Your task to perform on an android device: uninstall "DoorDash - Food Delivery" Image 0: 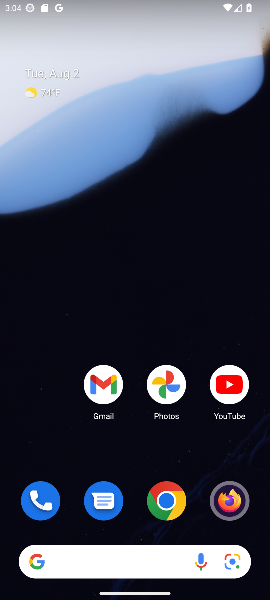
Step 0: drag from (164, 396) to (161, 4)
Your task to perform on an android device: uninstall "DoorDash - Food Delivery" Image 1: 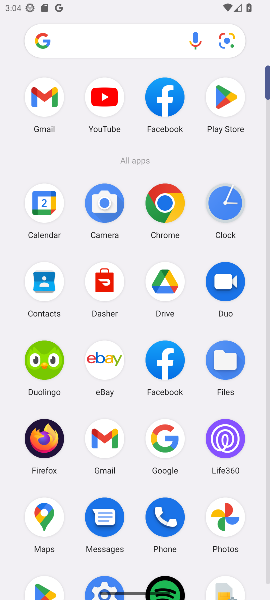
Step 1: click (225, 104)
Your task to perform on an android device: uninstall "DoorDash - Food Delivery" Image 2: 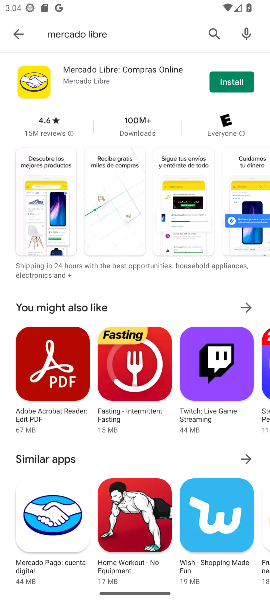
Step 2: click (212, 35)
Your task to perform on an android device: uninstall "DoorDash - Food Delivery" Image 3: 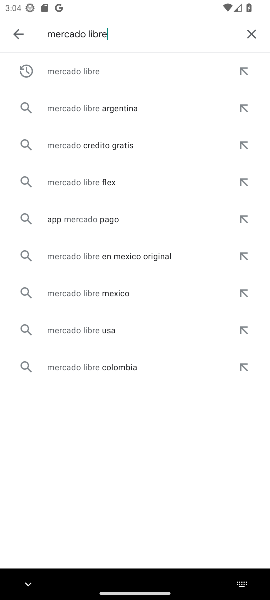
Step 3: click (255, 38)
Your task to perform on an android device: uninstall "DoorDash - Food Delivery" Image 4: 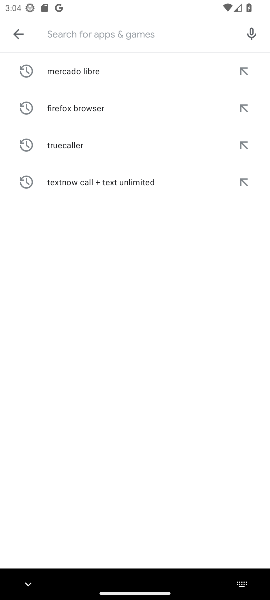
Step 4: type "DoorDash - Food Delivery"
Your task to perform on an android device: uninstall "DoorDash - Food Delivery" Image 5: 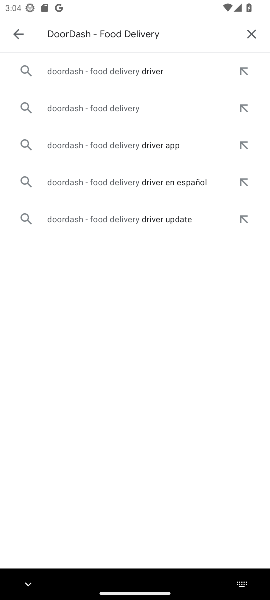
Step 5: click (89, 71)
Your task to perform on an android device: uninstall "DoorDash - Food Delivery" Image 6: 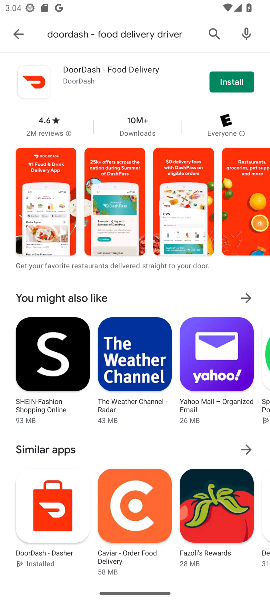
Step 6: task complete